Your task to perform on an android device: Open Yahoo.com Image 0: 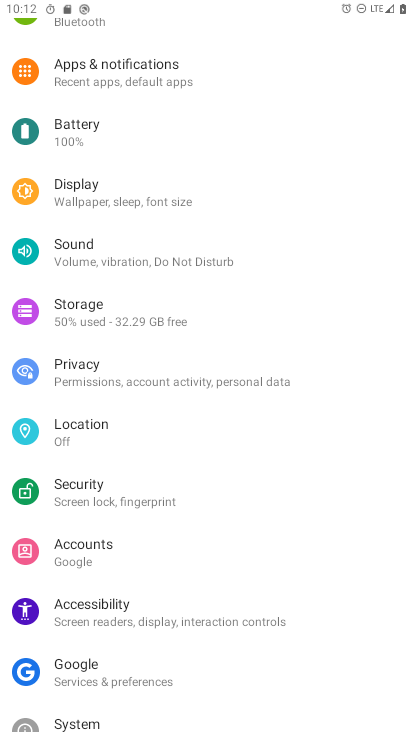
Step 0: press home button
Your task to perform on an android device: Open Yahoo.com Image 1: 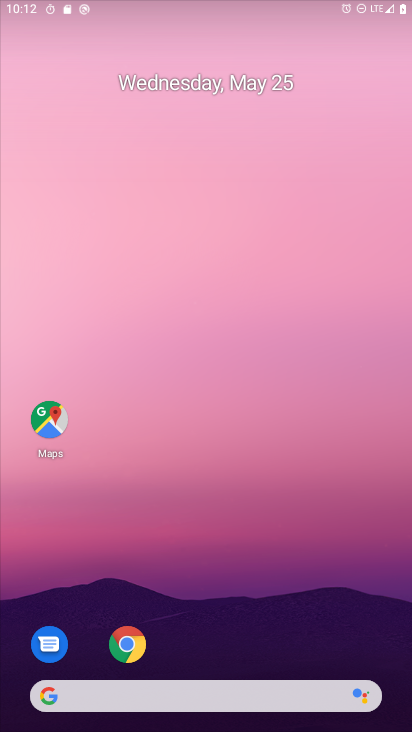
Step 1: drag from (372, 624) to (214, 18)
Your task to perform on an android device: Open Yahoo.com Image 2: 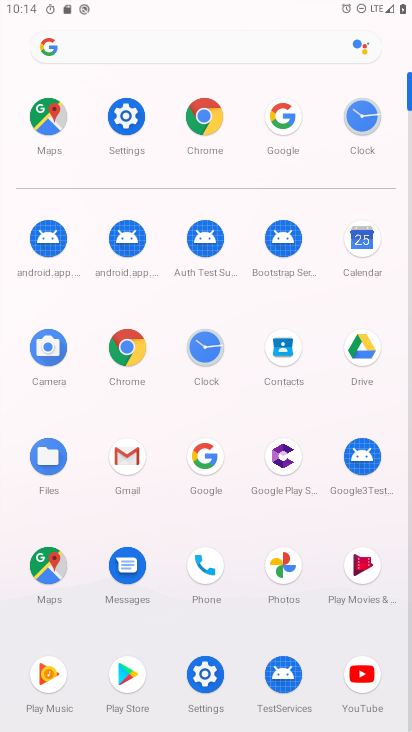
Step 2: click (199, 466)
Your task to perform on an android device: Open Yahoo.com Image 3: 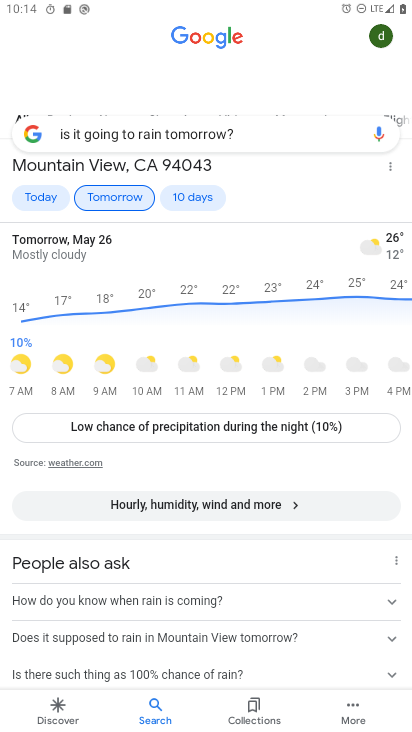
Step 3: press back button
Your task to perform on an android device: Open Yahoo.com Image 4: 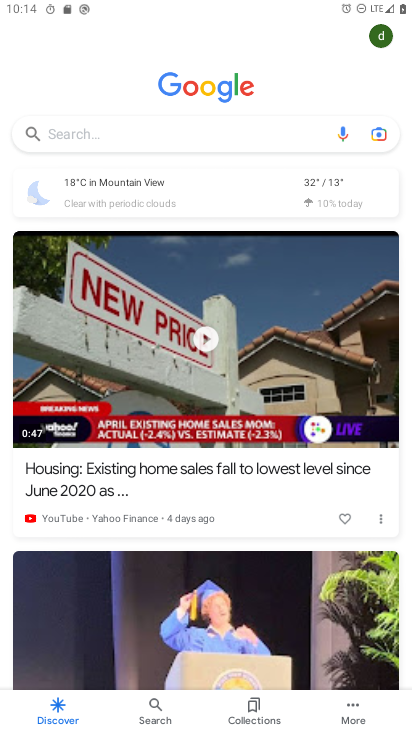
Step 4: click (77, 134)
Your task to perform on an android device: Open Yahoo.com Image 5: 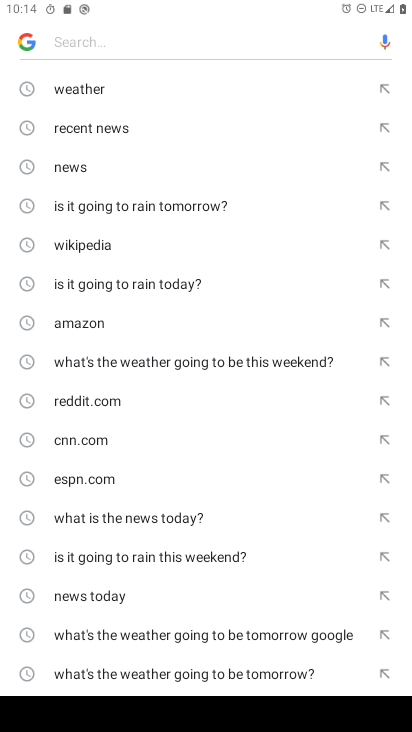
Step 5: drag from (120, 596) to (149, 222)
Your task to perform on an android device: Open Yahoo.com Image 6: 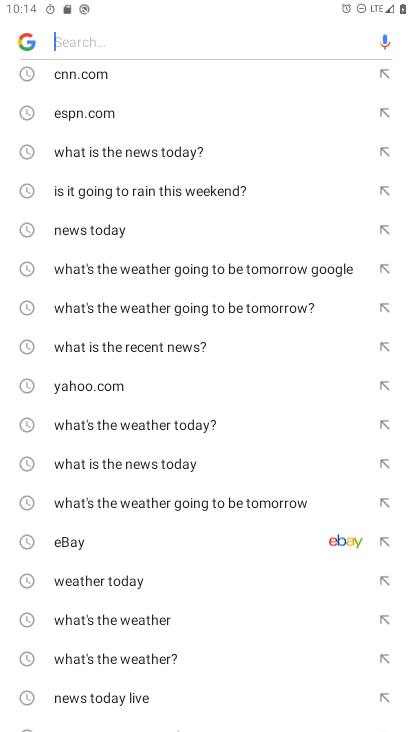
Step 6: click (91, 387)
Your task to perform on an android device: Open Yahoo.com Image 7: 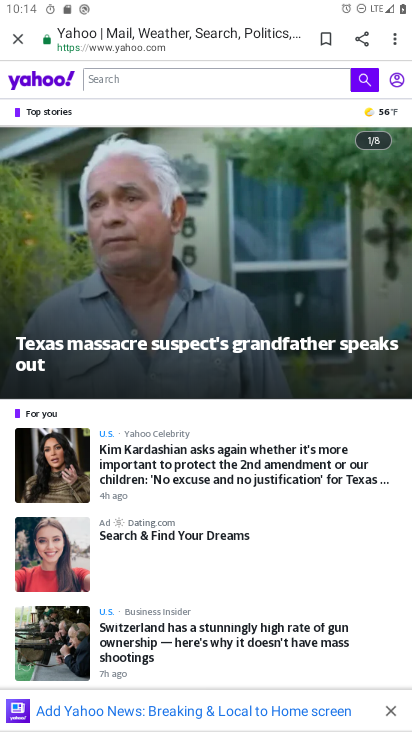
Step 7: task complete